Your task to perform on an android device: set default search engine in the chrome app Image 0: 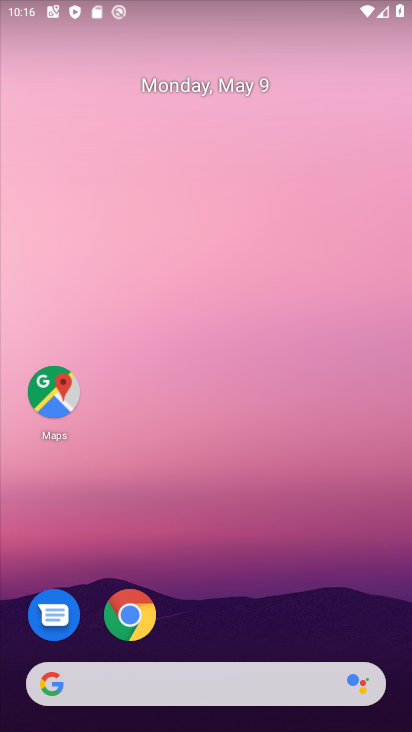
Step 0: click (127, 616)
Your task to perform on an android device: set default search engine in the chrome app Image 1: 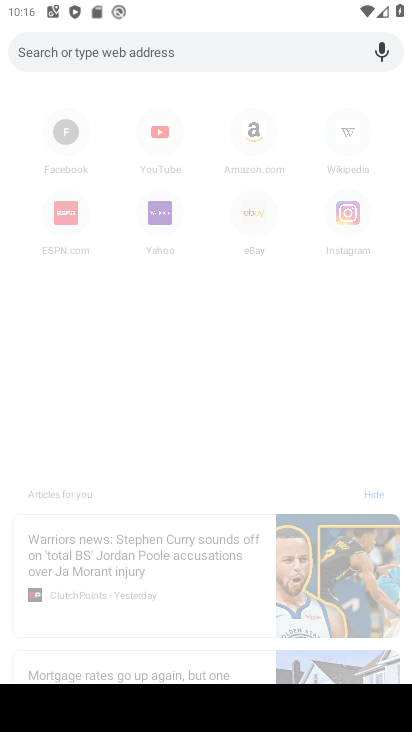
Step 1: click (97, 371)
Your task to perform on an android device: set default search engine in the chrome app Image 2: 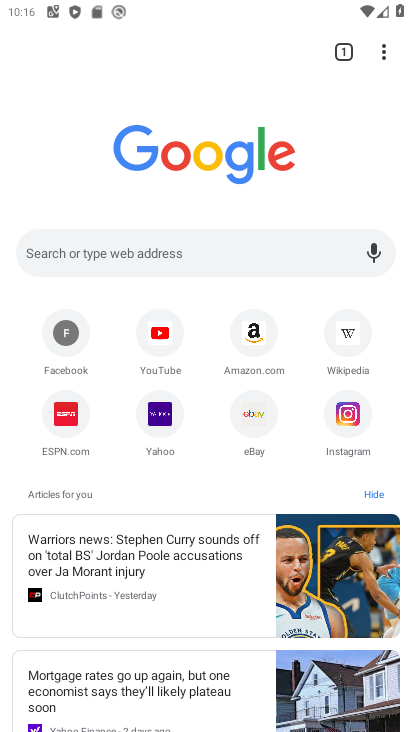
Step 2: click (381, 54)
Your task to perform on an android device: set default search engine in the chrome app Image 3: 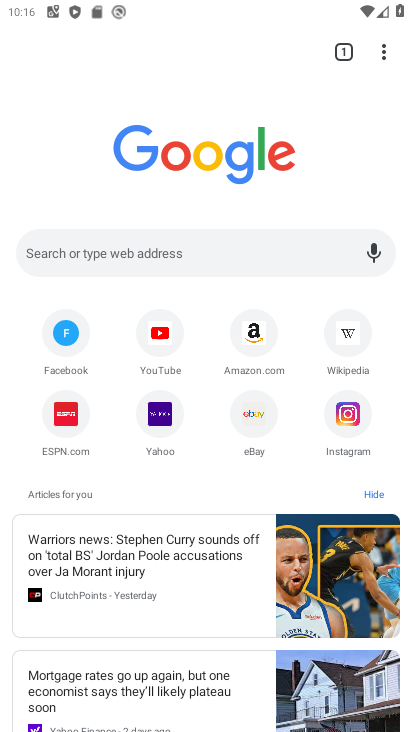
Step 3: click (381, 54)
Your task to perform on an android device: set default search engine in the chrome app Image 4: 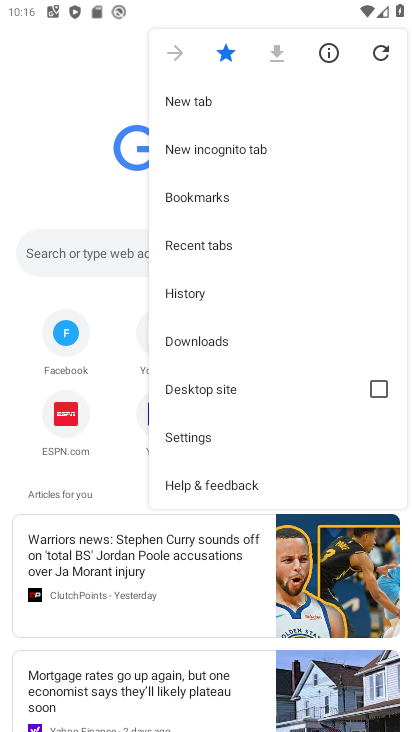
Step 4: click (212, 429)
Your task to perform on an android device: set default search engine in the chrome app Image 5: 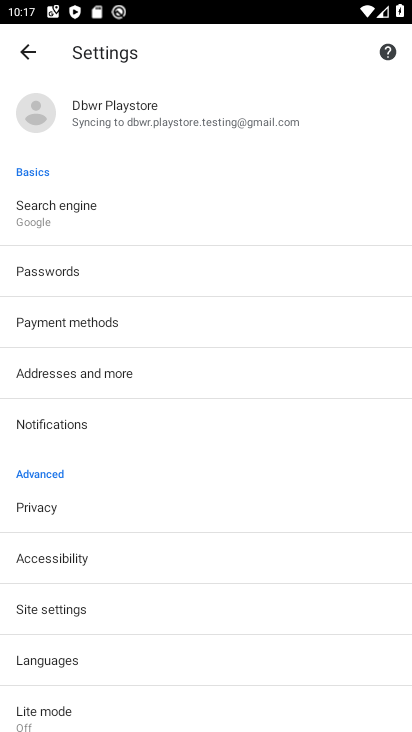
Step 5: click (84, 202)
Your task to perform on an android device: set default search engine in the chrome app Image 6: 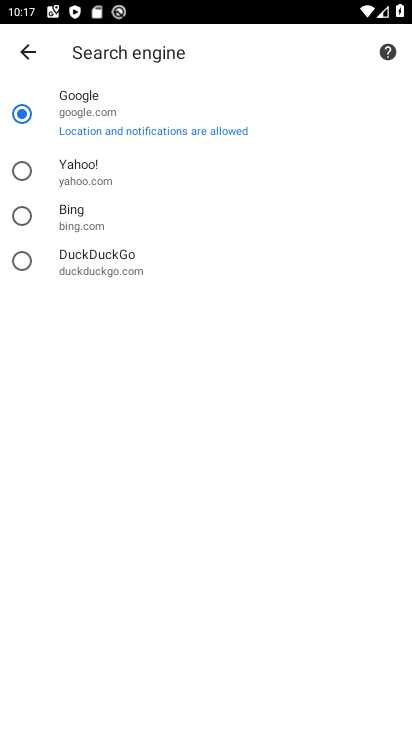
Step 6: task complete